Your task to perform on an android device: Go to CNN.com Image 0: 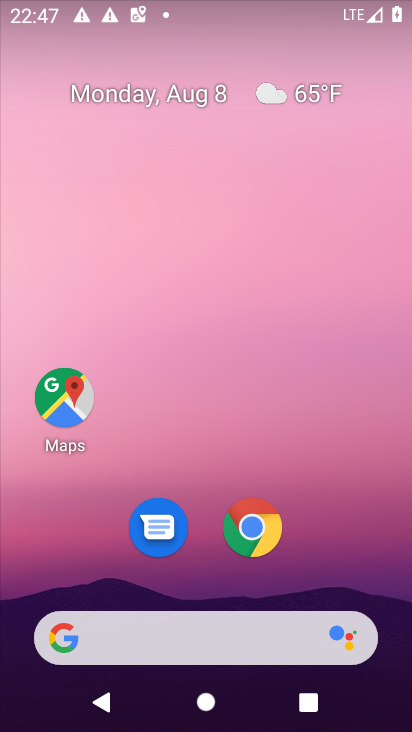
Step 0: click (256, 519)
Your task to perform on an android device: Go to CNN.com Image 1: 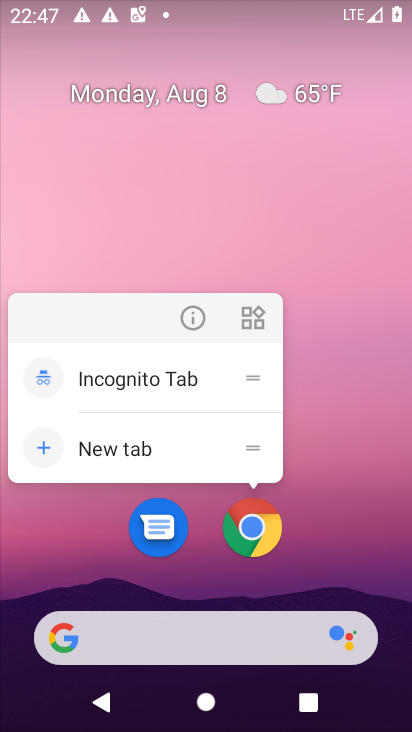
Step 1: click (193, 315)
Your task to perform on an android device: Go to CNN.com Image 2: 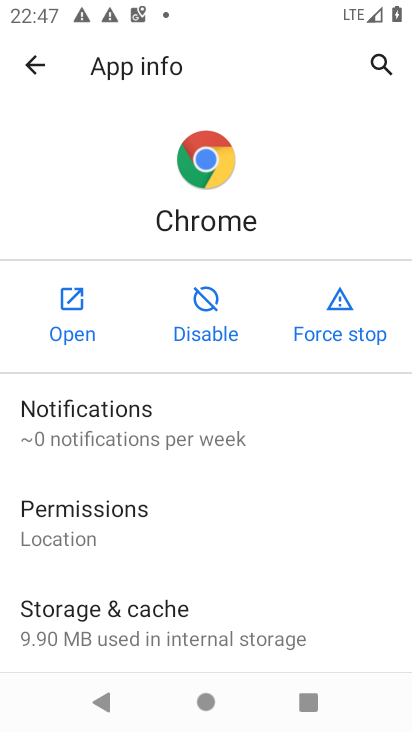
Step 2: press home button
Your task to perform on an android device: Go to CNN.com Image 3: 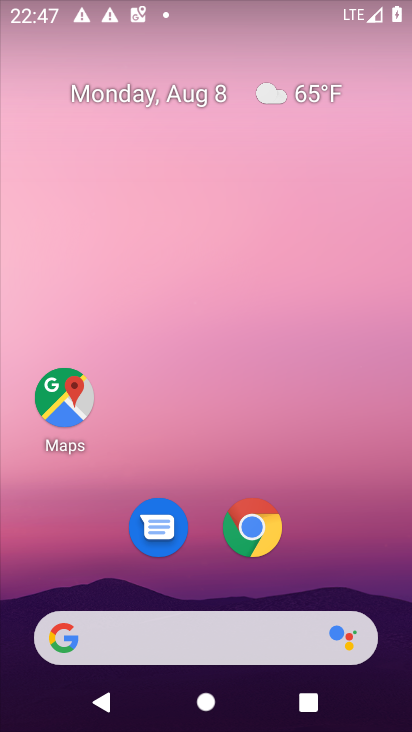
Step 3: click (225, 525)
Your task to perform on an android device: Go to CNN.com Image 4: 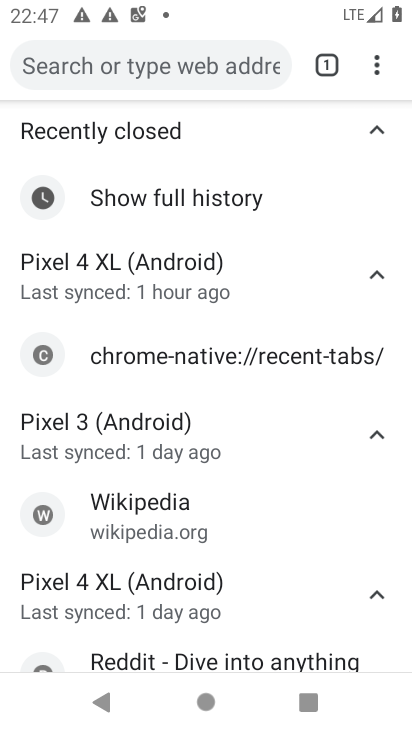
Step 4: click (282, 60)
Your task to perform on an android device: Go to CNN.com Image 5: 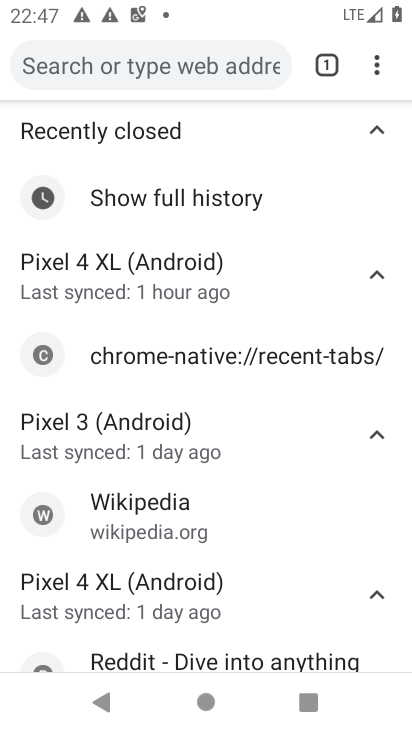
Step 5: click (253, 66)
Your task to perform on an android device: Go to CNN.com Image 6: 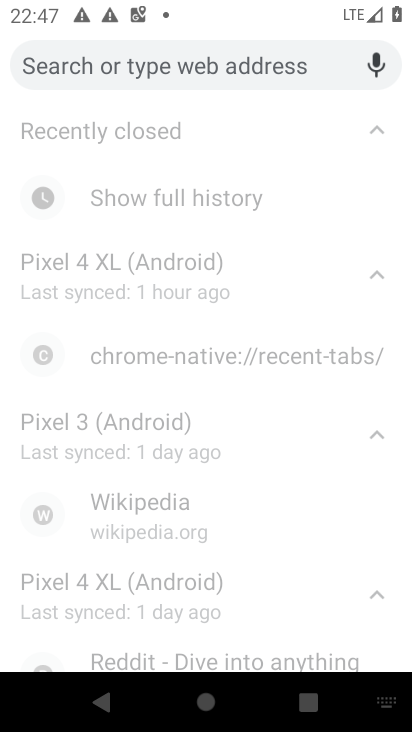
Step 6: type "CNN.com"
Your task to perform on an android device: Go to CNN.com Image 7: 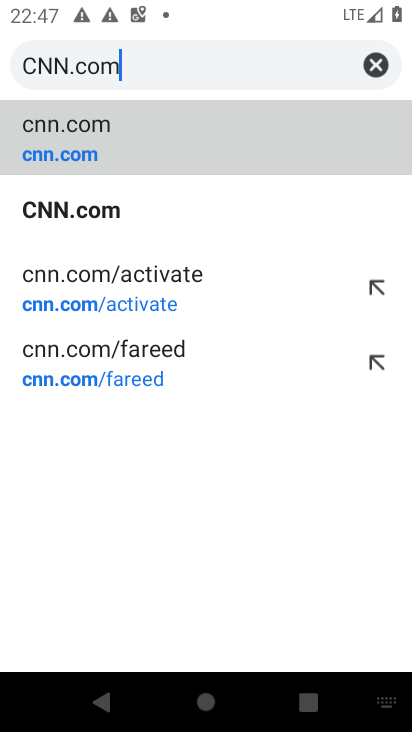
Step 7: click (82, 207)
Your task to perform on an android device: Go to CNN.com Image 8: 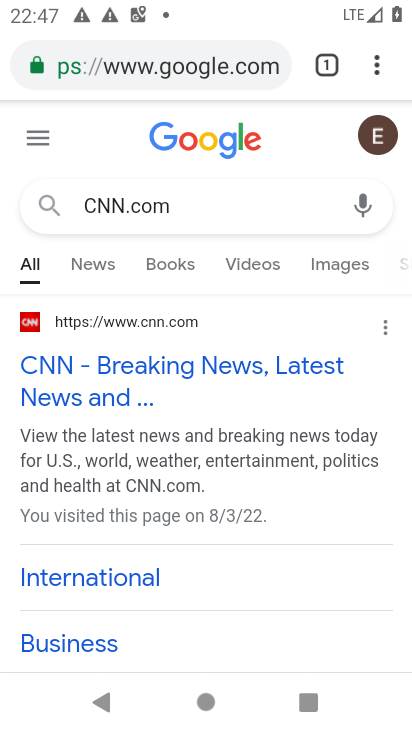
Step 8: task complete